Your task to perform on an android device: Go to Google Image 0: 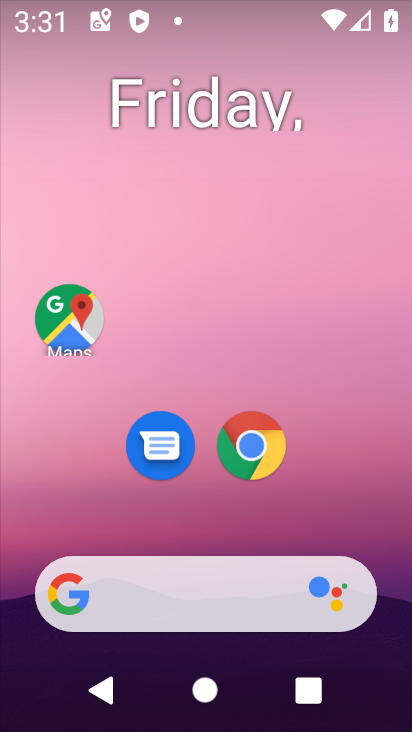
Step 0: click (71, 594)
Your task to perform on an android device: Go to Google Image 1: 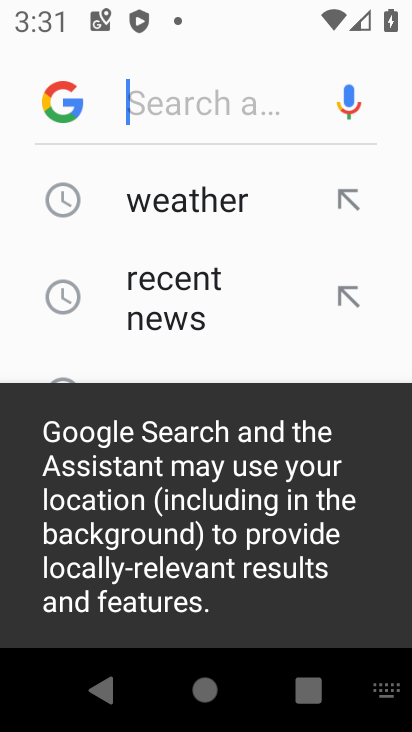
Step 1: click (80, 116)
Your task to perform on an android device: Go to Google Image 2: 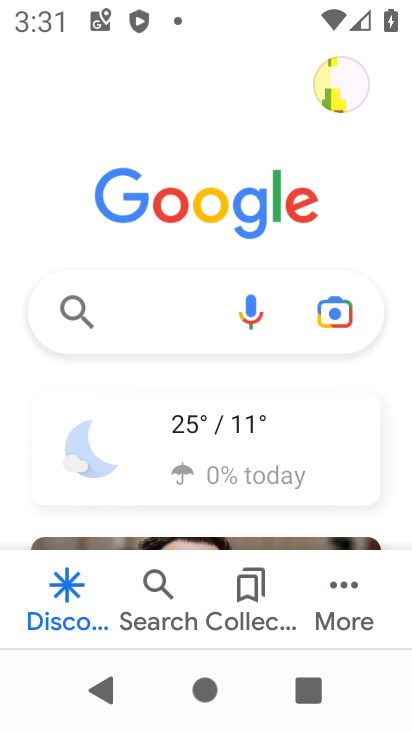
Step 2: task complete